Your task to perform on an android device: open chrome privacy settings Image 0: 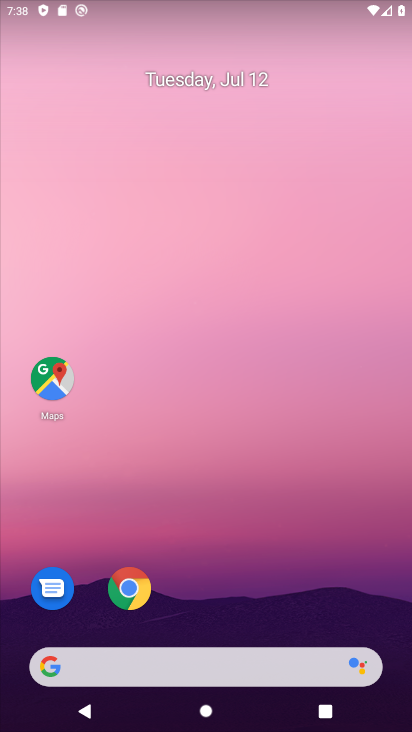
Step 0: drag from (257, 583) to (323, 5)
Your task to perform on an android device: open chrome privacy settings Image 1: 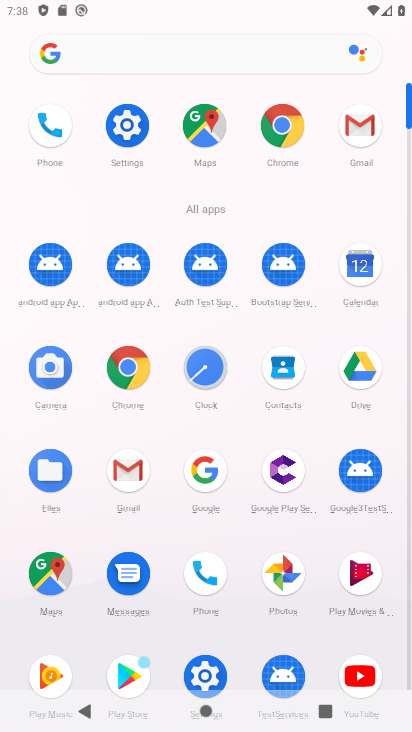
Step 1: click (281, 134)
Your task to perform on an android device: open chrome privacy settings Image 2: 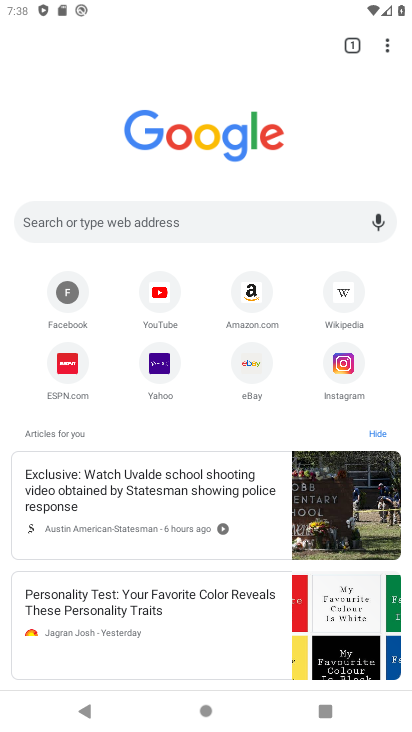
Step 2: drag from (379, 41) to (218, 387)
Your task to perform on an android device: open chrome privacy settings Image 3: 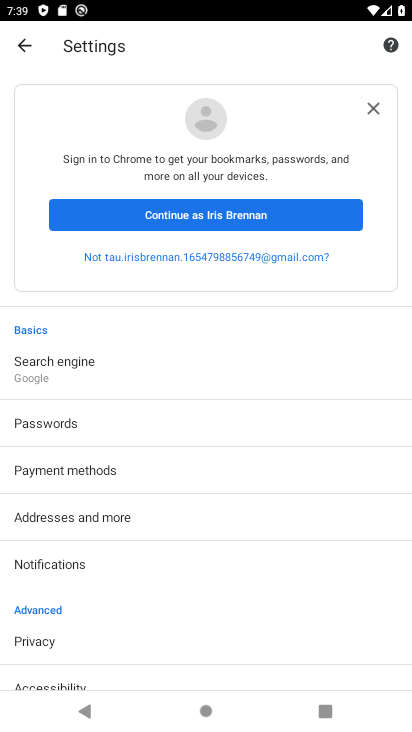
Step 3: drag from (114, 660) to (224, 369)
Your task to perform on an android device: open chrome privacy settings Image 4: 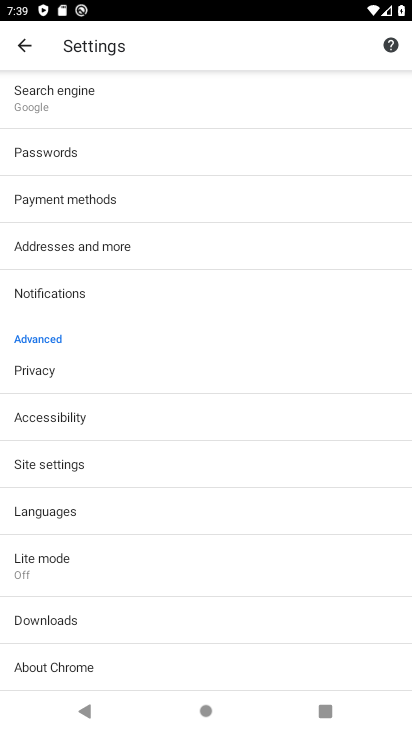
Step 4: click (103, 364)
Your task to perform on an android device: open chrome privacy settings Image 5: 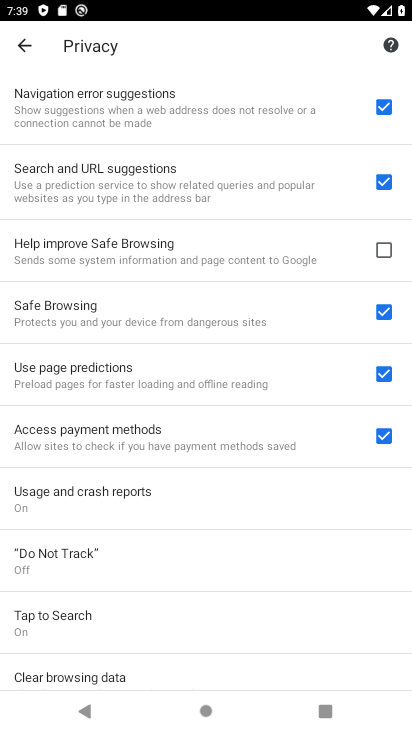
Step 5: task complete